Your task to perform on an android device: Do I have any events this weekend? Image 0: 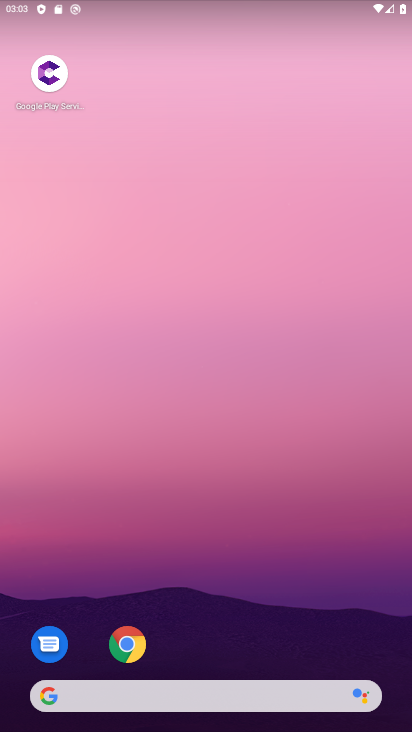
Step 0: drag from (375, 664) to (318, 123)
Your task to perform on an android device: Do I have any events this weekend? Image 1: 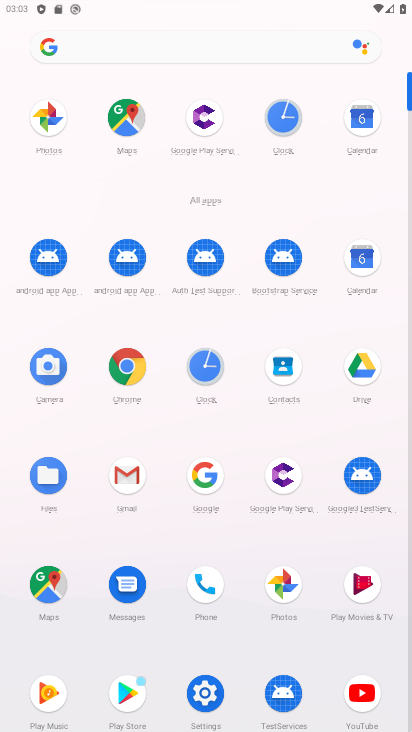
Step 1: click (217, 369)
Your task to perform on an android device: Do I have any events this weekend? Image 2: 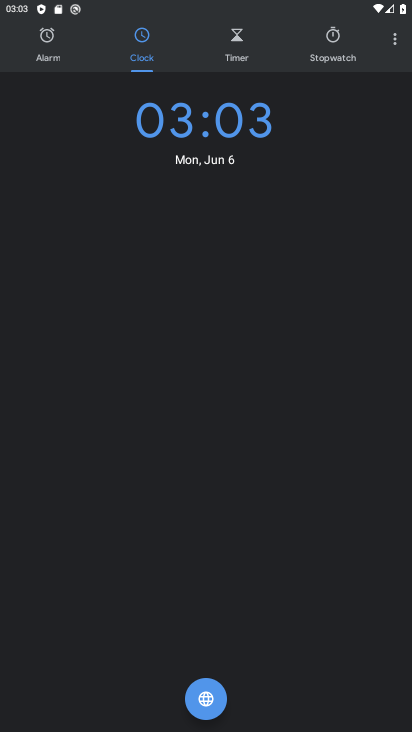
Step 2: click (396, 46)
Your task to perform on an android device: Do I have any events this weekend? Image 3: 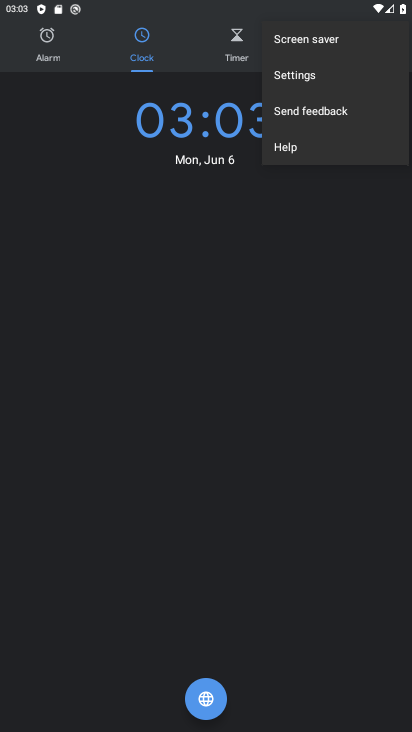
Step 3: press home button
Your task to perform on an android device: Do I have any events this weekend? Image 4: 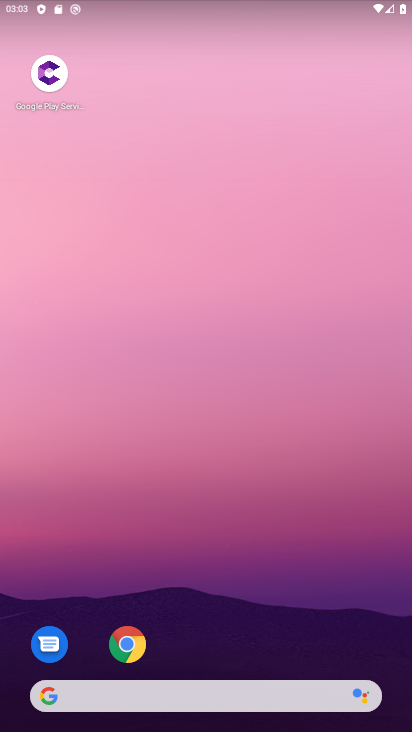
Step 4: drag from (397, 712) to (310, 62)
Your task to perform on an android device: Do I have any events this weekend? Image 5: 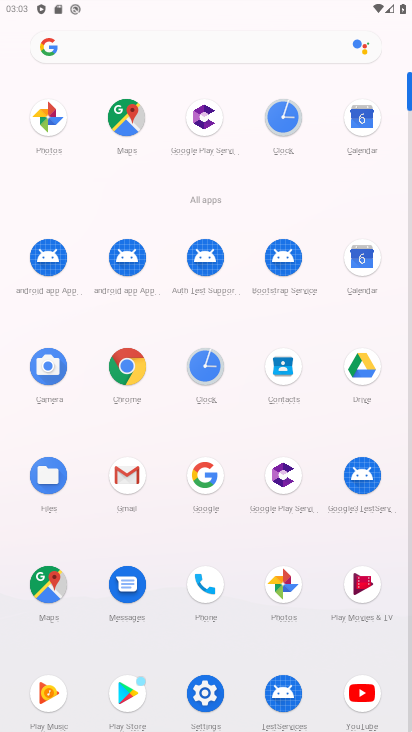
Step 5: click (361, 131)
Your task to perform on an android device: Do I have any events this weekend? Image 6: 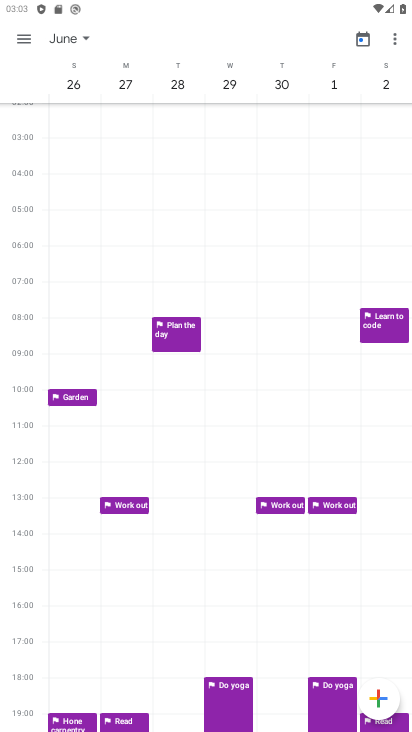
Step 6: click (85, 36)
Your task to perform on an android device: Do I have any events this weekend? Image 7: 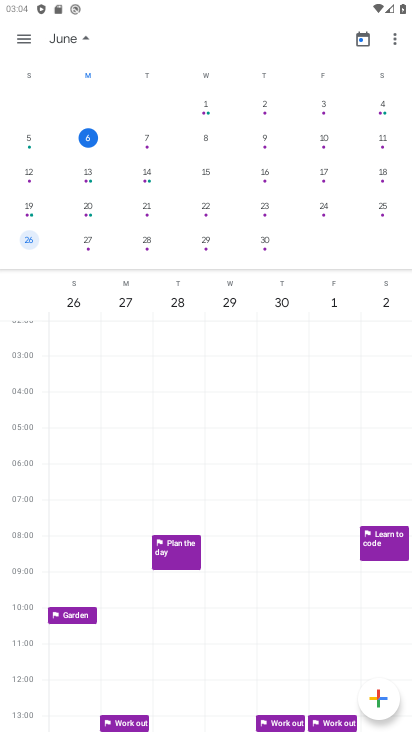
Step 7: click (29, 34)
Your task to perform on an android device: Do I have any events this weekend? Image 8: 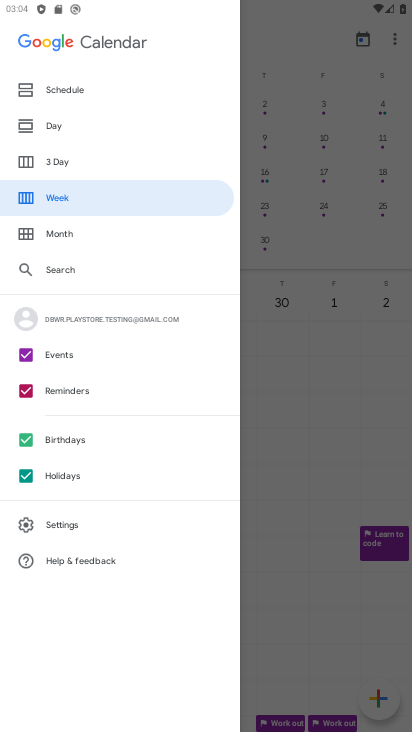
Step 8: click (67, 194)
Your task to perform on an android device: Do I have any events this weekend? Image 9: 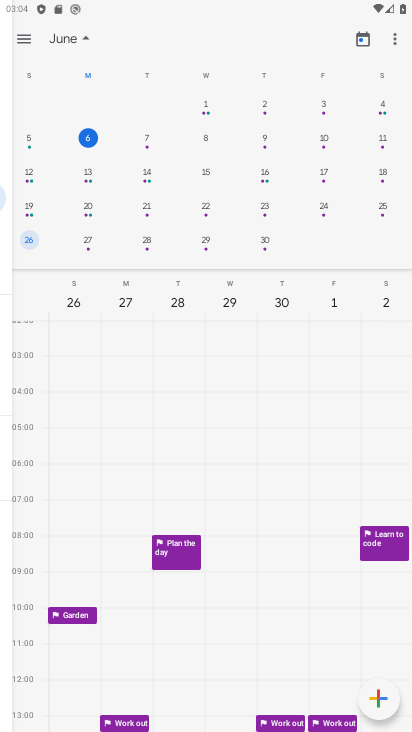
Step 9: click (67, 88)
Your task to perform on an android device: Do I have any events this weekend? Image 10: 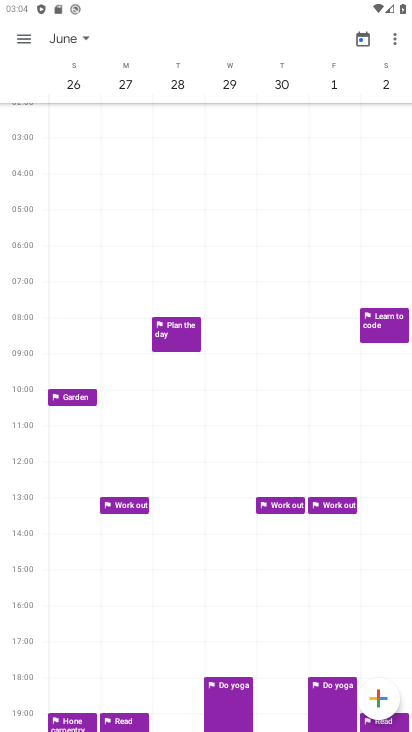
Step 10: click (20, 38)
Your task to perform on an android device: Do I have any events this weekend? Image 11: 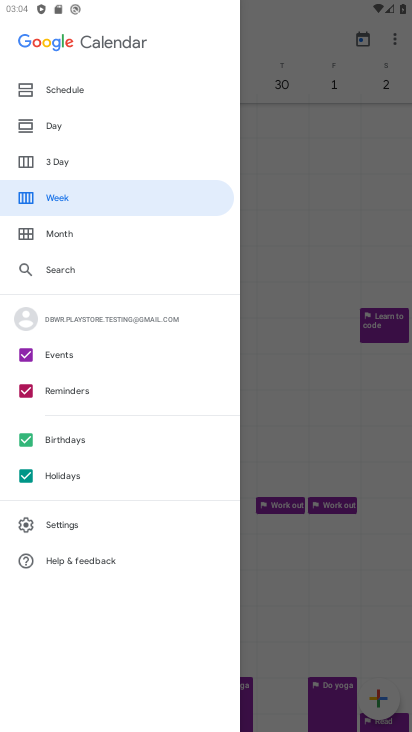
Step 11: click (83, 75)
Your task to perform on an android device: Do I have any events this weekend? Image 12: 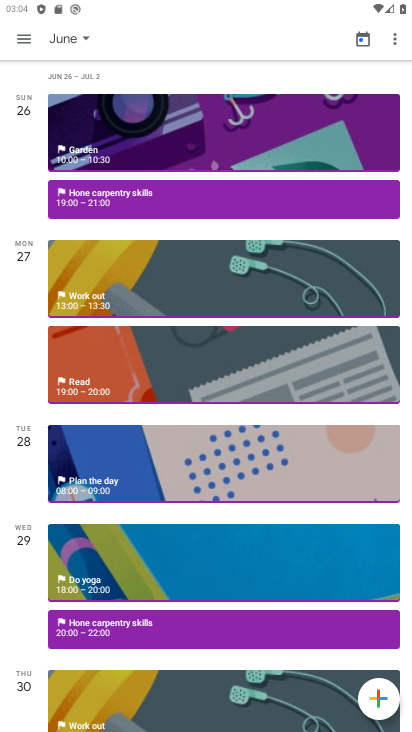
Step 12: task complete